Your task to perform on an android device: turn off sleep mode Image 0: 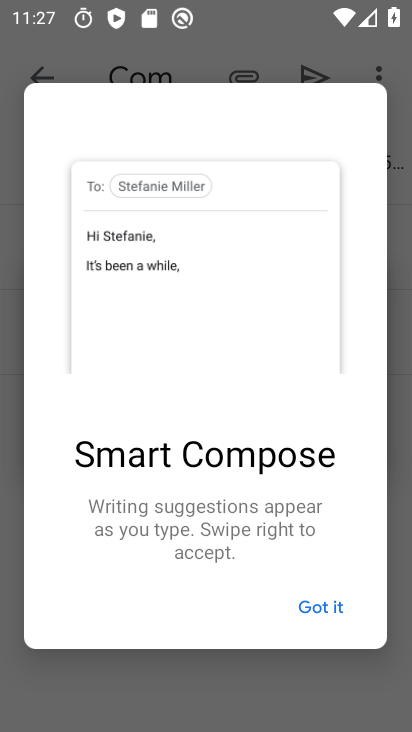
Step 0: press home button
Your task to perform on an android device: turn off sleep mode Image 1: 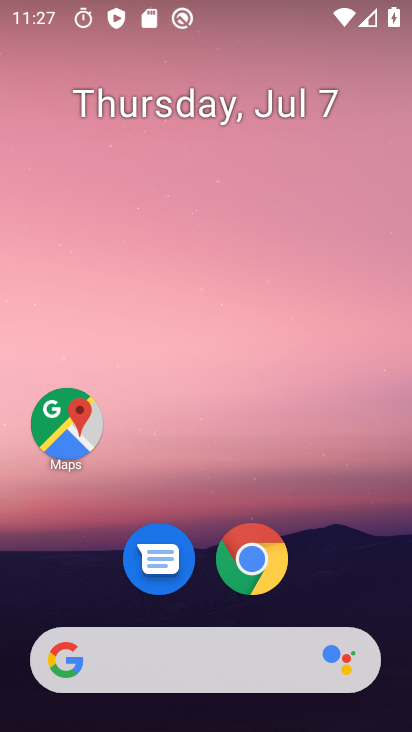
Step 1: drag from (363, 586) to (354, 132)
Your task to perform on an android device: turn off sleep mode Image 2: 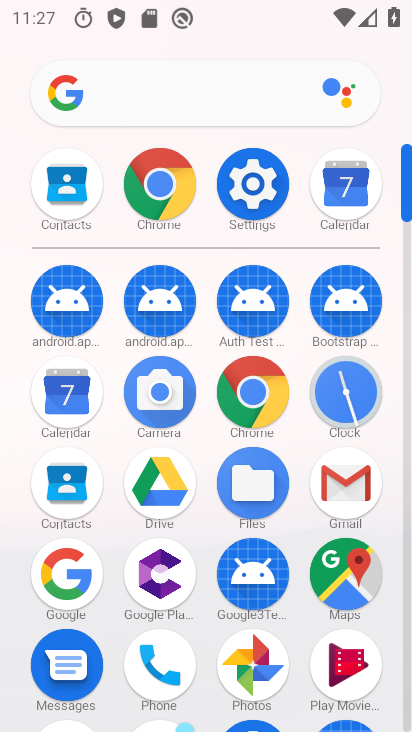
Step 2: click (260, 202)
Your task to perform on an android device: turn off sleep mode Image 3: 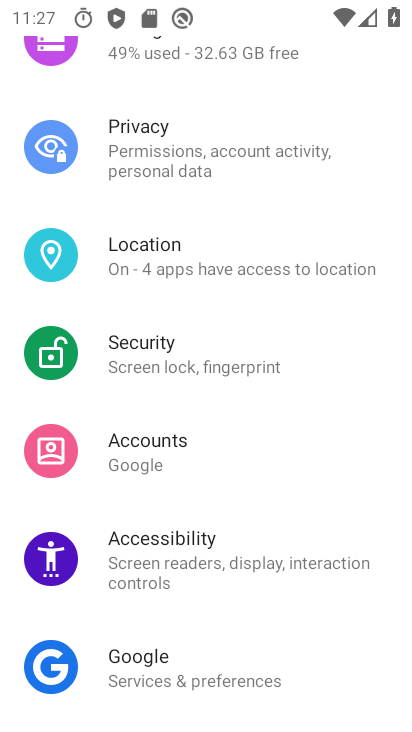
Step 3: drag from (314, 243) to (330, 313)
Your task to perform on an android device: turn off sleep mode Image 4: 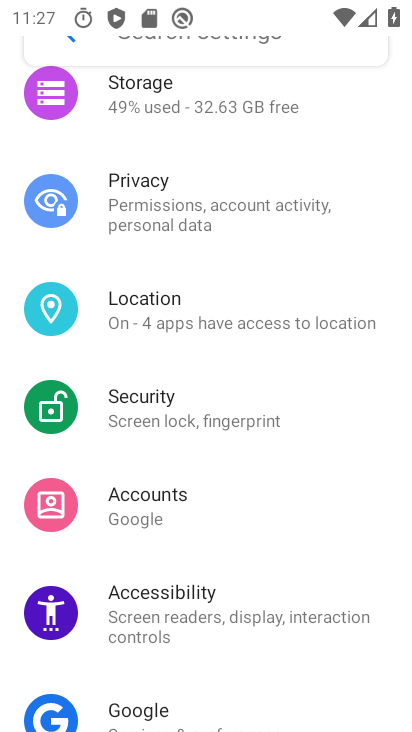
Step 4: drag from (371, 214) to (376, 288)
Your task to perform on an android device: turn off sleep mode Image 5: 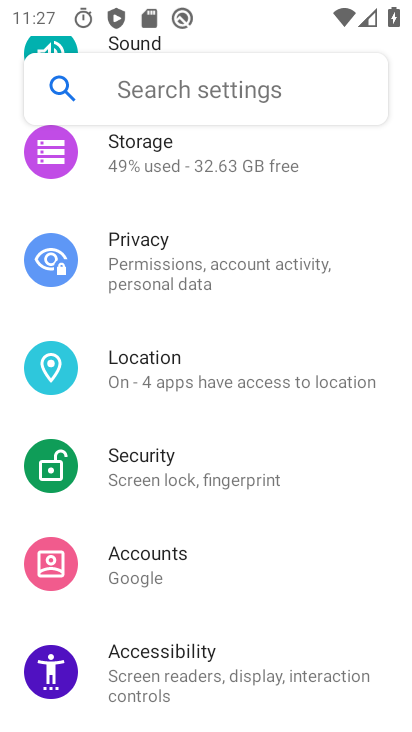
Step 5: drag from (377, 212) to (373, 291)
Your task to perform on an android device: turn off sleep mode Image 6: 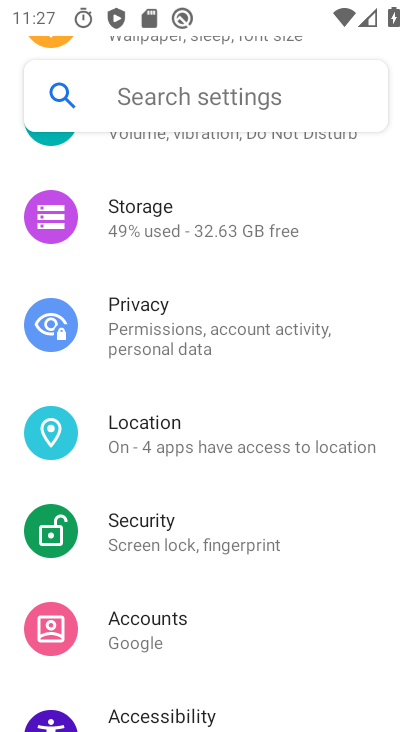
Step 6: drag from (364, 229) to (367, 316)
Your task to perform on an android device: turn off sleep mode Image 7: 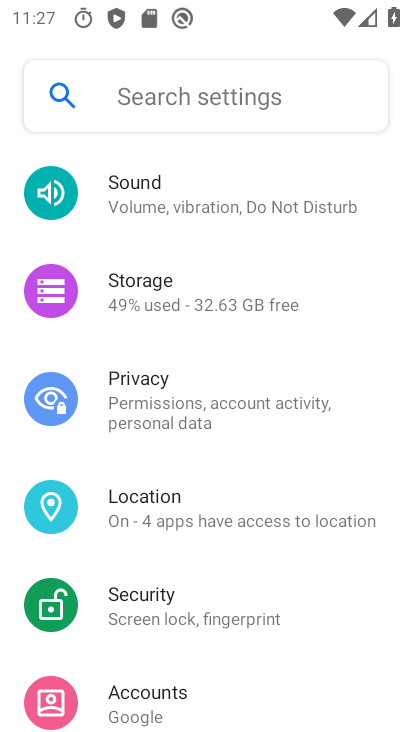
Step 7: drag from (367, 229) to (368, 311)
Your task to perform on an android device: turn off sleep mode Image 8: 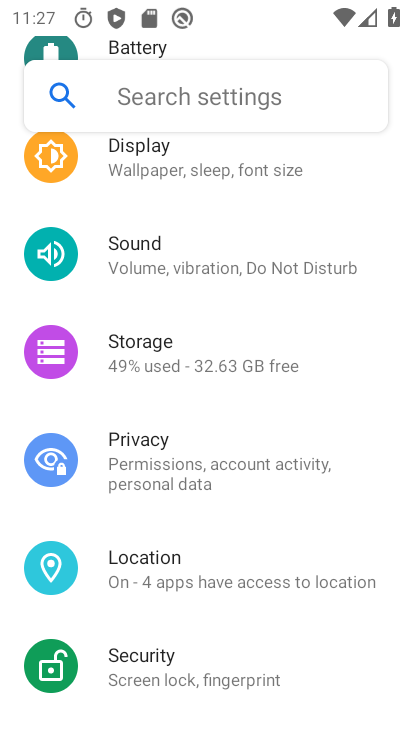
Step 8: drag from (367, 217) to (368, 293)
Your task to perform on an android device: turn off sleep mode Image 9: 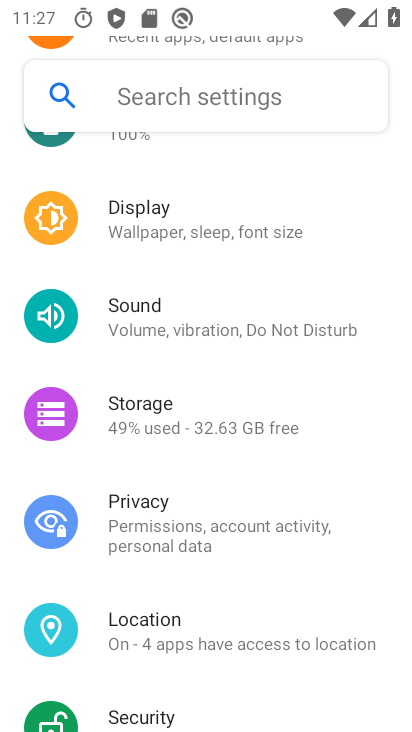
Step 9: drag from (358, 226) to (358, 301)
Your task to perform on an android device: turn off sleep mode Image 10: 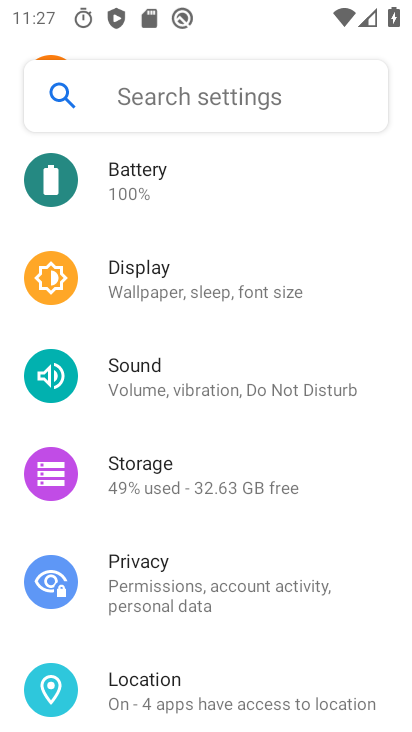
Step 10: drag from (362, 224) to (362, 309)
Your task to perform on an android device: turn off sleep mode Image 11: 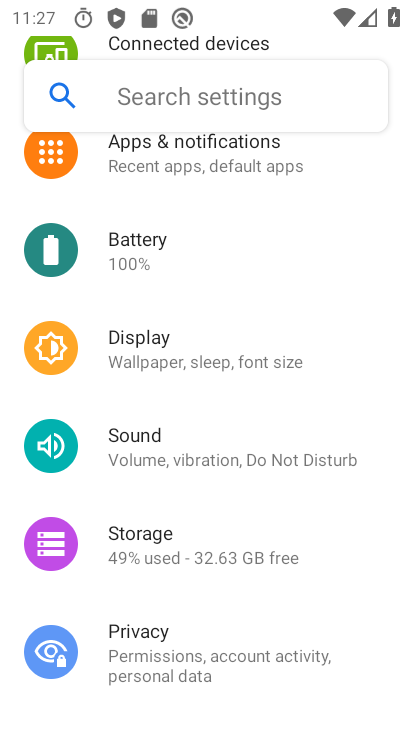
Step 11: drag from (360, 231) to (370, 367)
Your task to perform on an android device: turn off sleep mode Image 12: 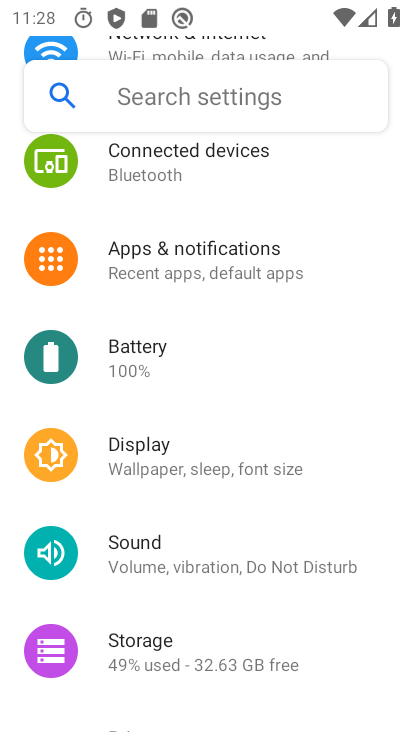
Step 12: drag from (370, 206) to (369, 324)
Your task to perform on an android device: turn off sleep mode Image 13: 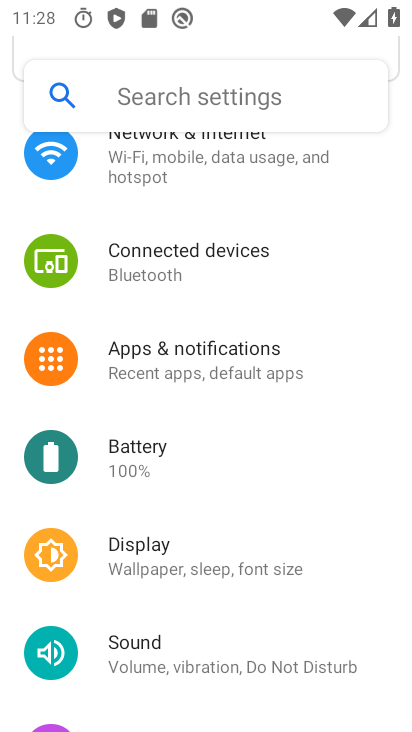
Step 13: click (304, 568)
Your task to perform on an android device: turn off sleep mode Image 14: 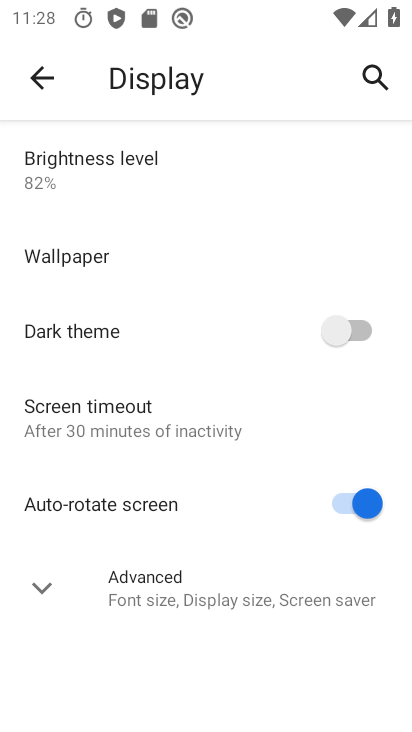
Step 14: click (274, 592)
Your task to perform on an android device: turn off sleep mode Image 15: 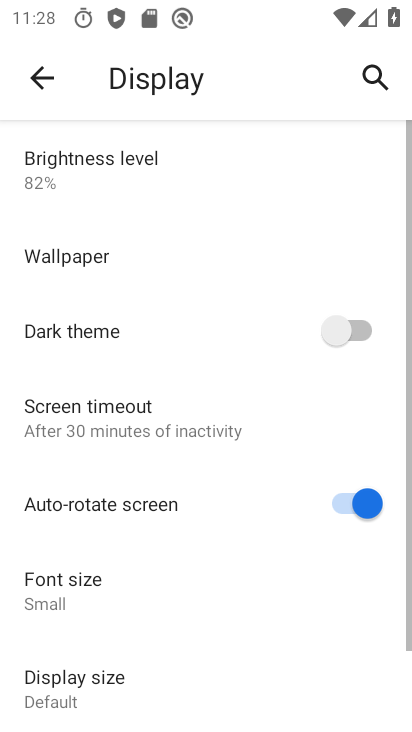
Step 15: task complete